Your task to perform on an android device: toggle notifications settings in the gmail app Image 0: 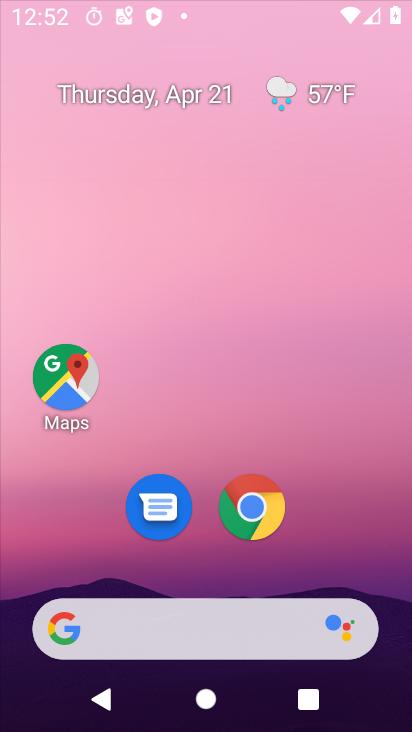
Step 0: click (235, 269)
Your task to perform on an android device: toggle notifications settings in the gmail app Image 1: 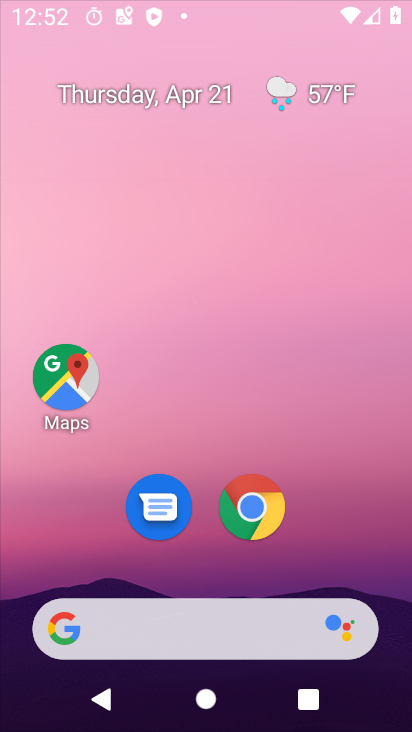
Step 1: drag from (234, 441) to (264, 230)
Your task to perform on an android device: toggle notifications settings in the gmail app Image 2: 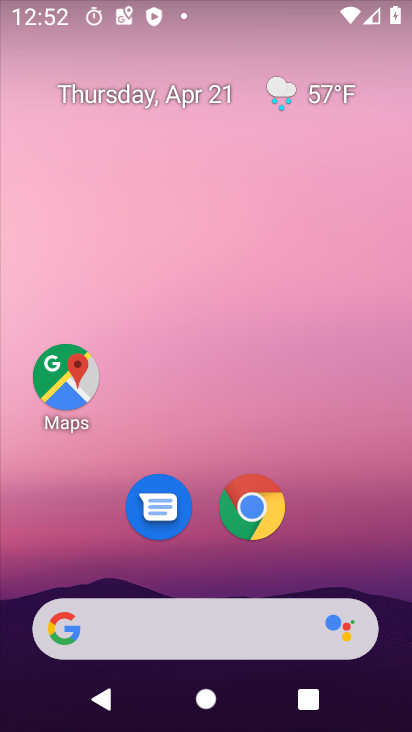
Step 2: drag from (229, 270) to (261, 46)
Your task to perform on an android device: toggle notifications settings in the gmail app Image 3: 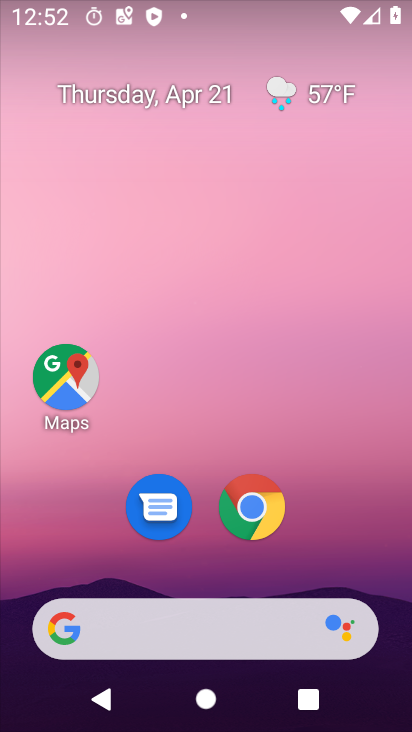
Step 3: drag from (211, 555) to (241, 145)
Your task to perform on an android device: toggle notifications settings in the gmail app Image 4: 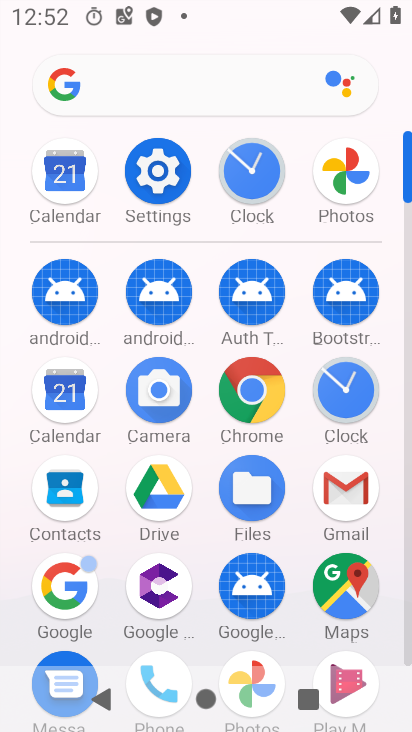
Step 4: click (331, 478)
Your task to perform on an android device: toggle notifications settings in the gmail app Image 5: 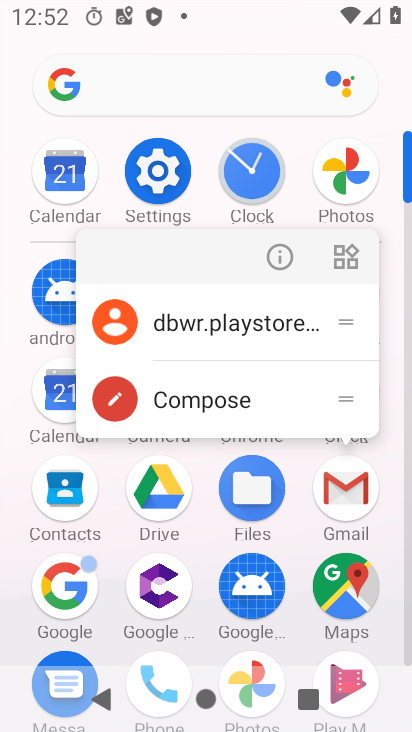
Step 5: click (279, 271)
Your task to perform on an android device: toggle notifications settings in the gmail app Image 6: 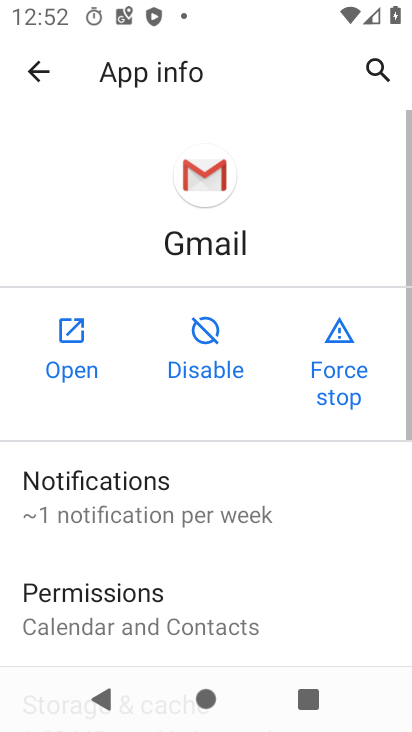
Step 6: click (78, 330)
Your task to perform on an android device: toggle notifications settings in the gmail app Image 7: 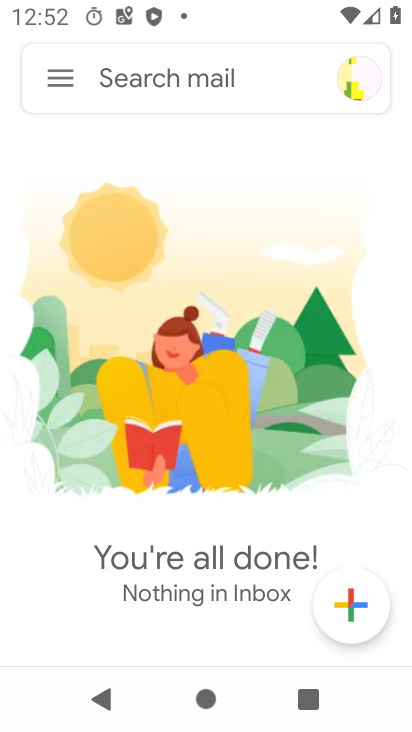
Step 7: click (70, 61)
Your task to perform on an android device: toggle notifications settings in the gmail app Image 8: 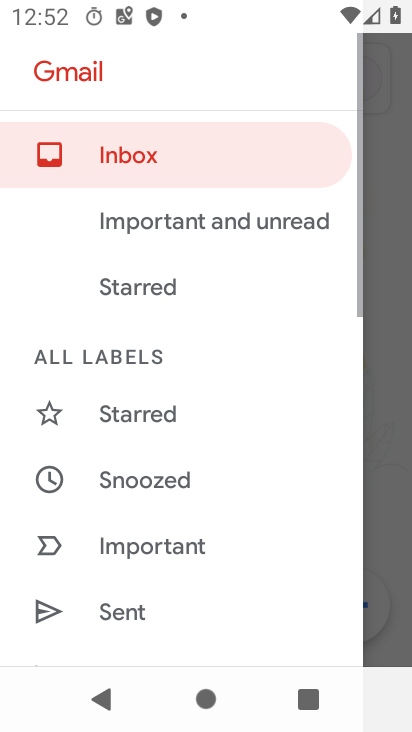
Step 8: drag from (129, 639) to (298, 68)
Your task to perform on an android device: toggle notifications settings in the gmail app Image 9: 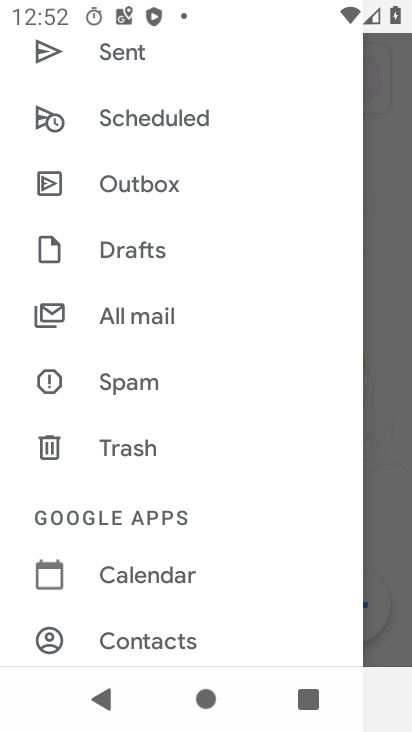
Step 9: drag from (255, 579) to (267, 6)
Your task to perform on an android device: toggle notifications settings in the gmail app Image 10: 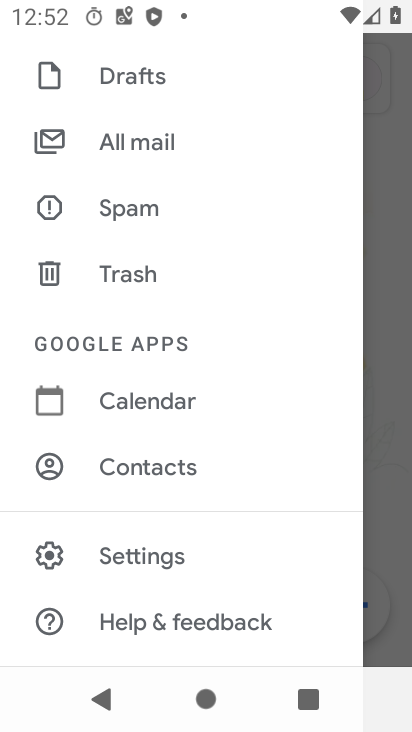
Step 10: click (144, 556)
Your task to perform on an android device: toggle notifications settings in the gmail app Image 11: 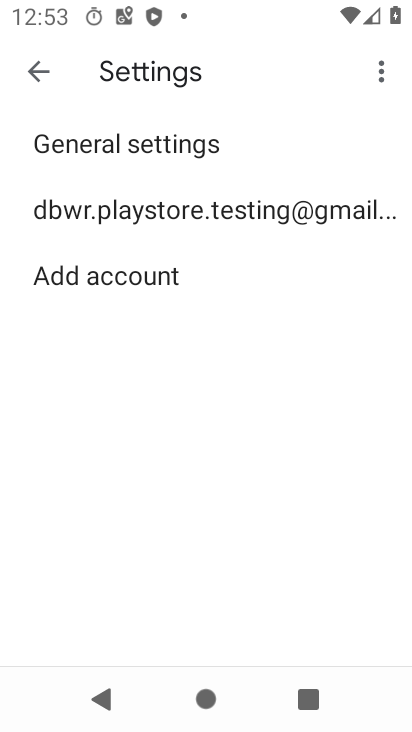
Step 11: click (175, 223)
Your task to perform on an android device: toggle notifications settings in the gmail app Image 12: 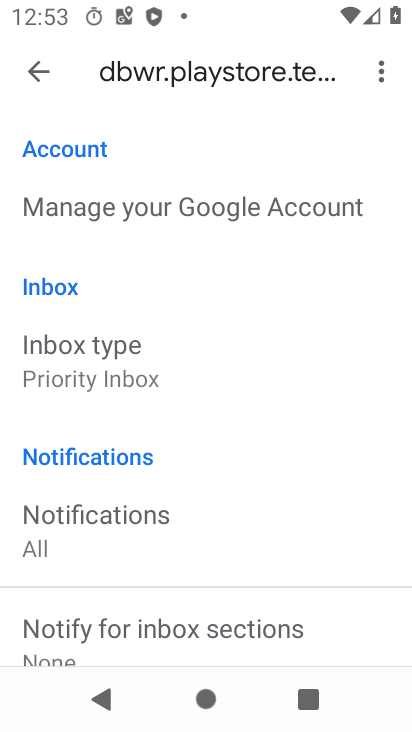
Step 12: drag from (192, 521) to (265, 163)
Your task to perform on an android device: toggle notifications settings in the gmail app Image 13: 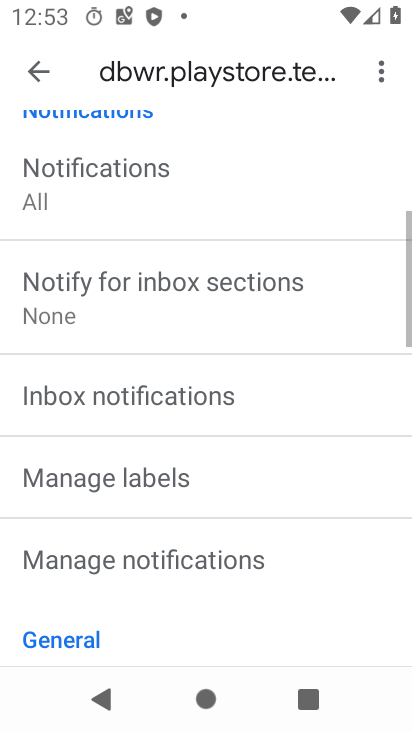
Step 13: click (181, 557)
Your task to perform on an android device: toggle notifications settings in the gmail app Image 14: 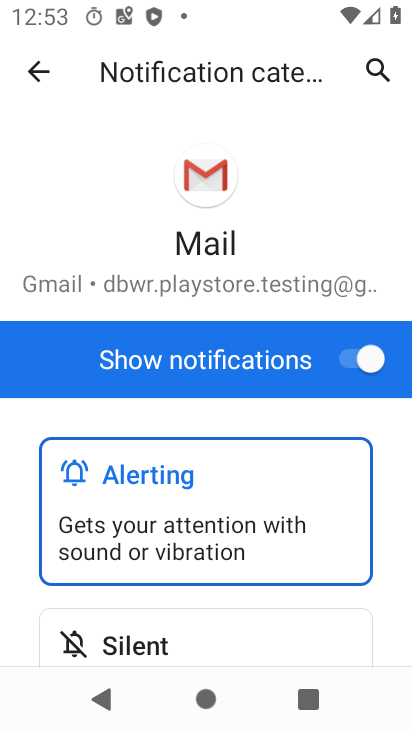
Step 14: click (332, 365)
Your task to perform on an android device: toggle notifications settings in the gmail app Image 15: 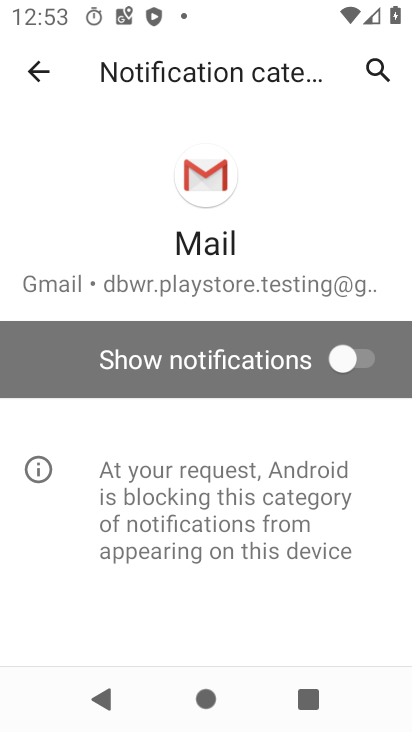
Step 15: task complete